Your task to perform on an android device: Go to Wikipedia Image 0: 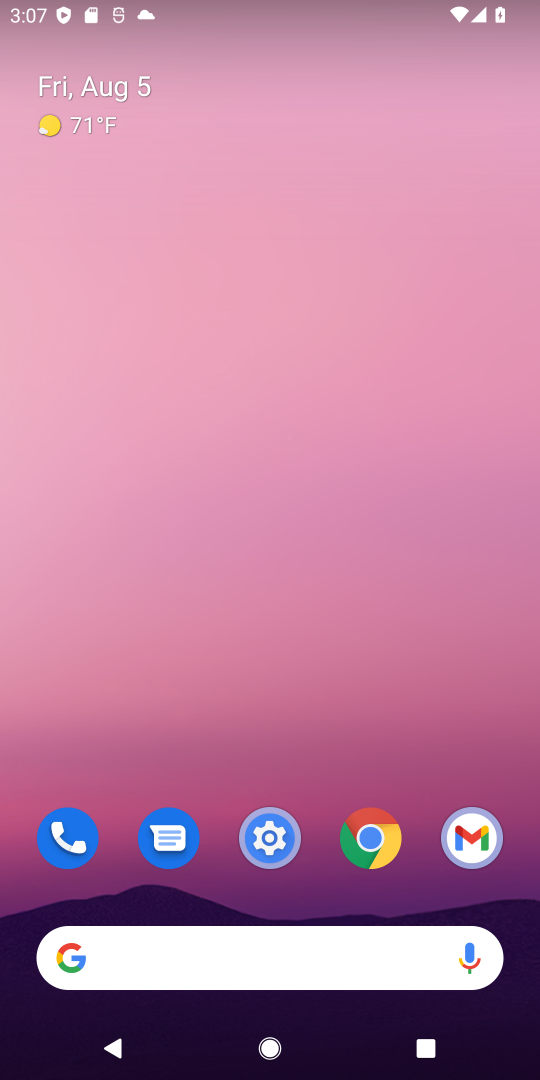
Step 0: drag from (434, 774) to (337, 197)
Your task to perform on an android device: Go to Wikipedia Image 1: 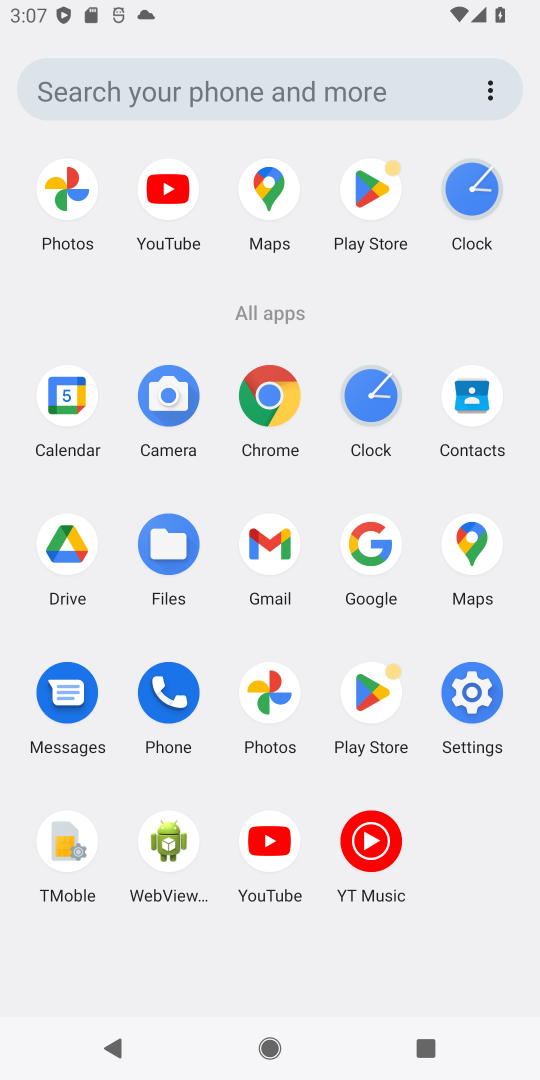
Step 1: click (259, 402)
Your task to perform on an android device: Go to Wikipedia Image 2: 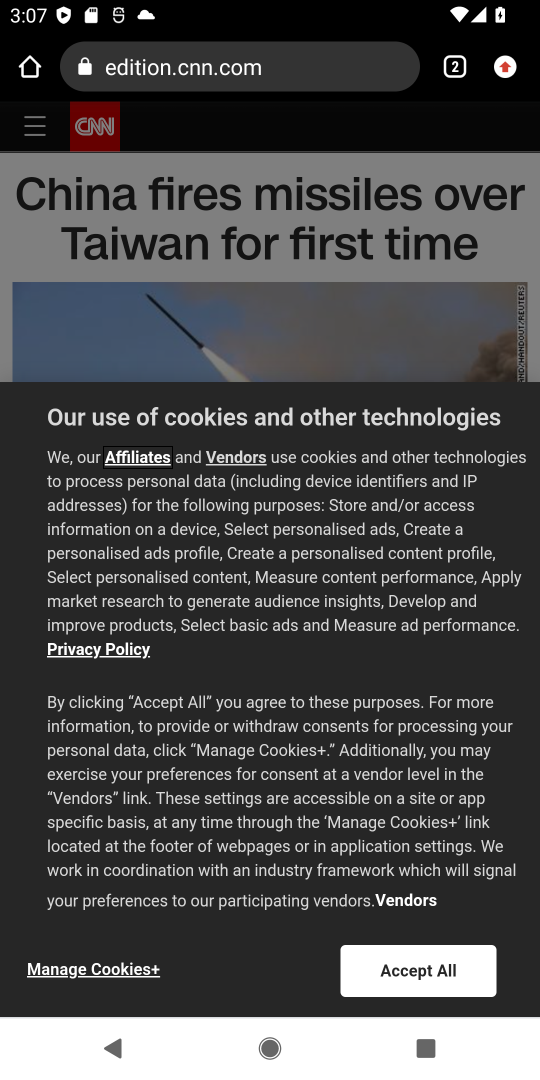
Step 2: click (462, 76)
Your task to perform on an android device: Go to Wikipedia Image 3: 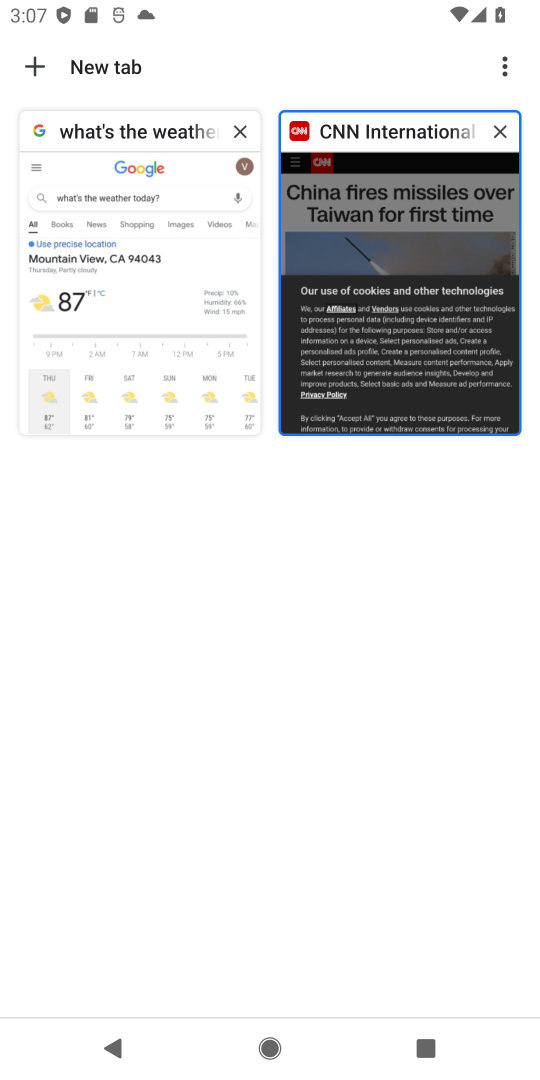
Step 3: click (62, 72)
Your task to perform on an android device: Go to Wikipedia Image 4: 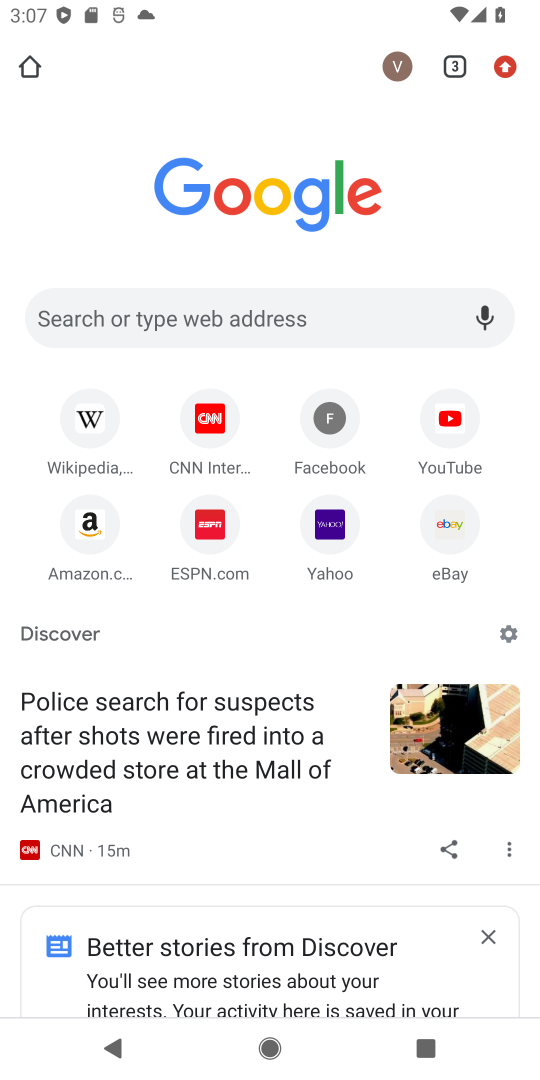
Step 4: click (97, 428)
Your task to perform on an android device: Go to Wikipedia Image 5: 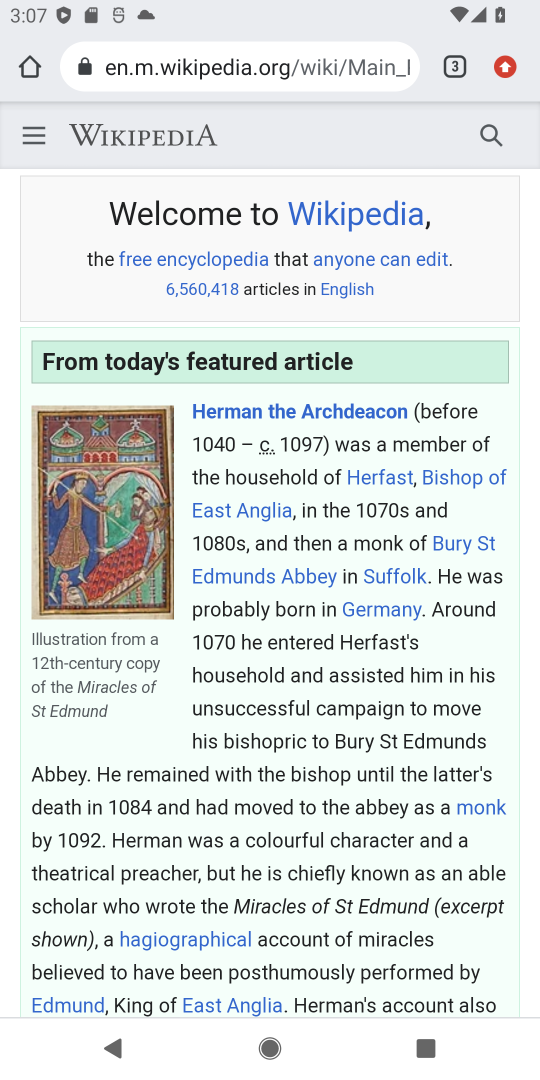
Step 5: task complete